Your task to perform on an android device: Open the web browser Image 0: 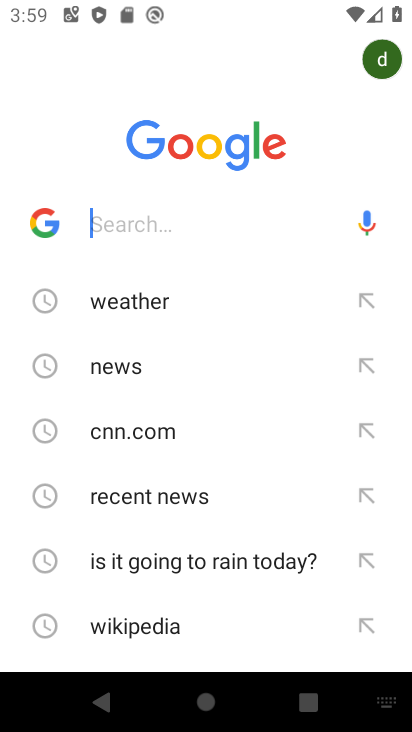
Step 0: press home button
Your task to perform on an android device: Open the web browser Image 1: 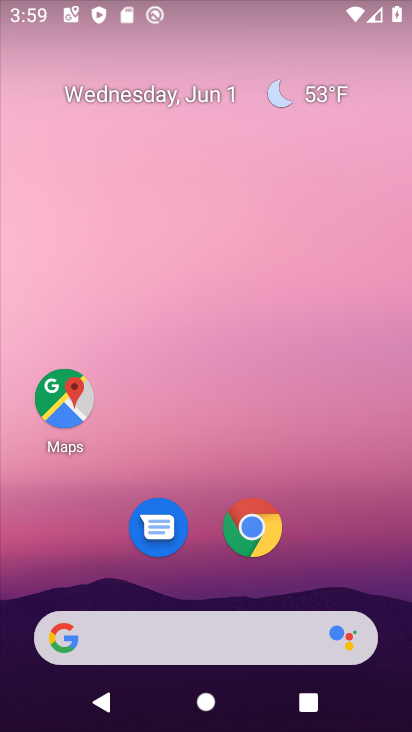
Step 1: click (252, 523)
Your task to perform on an android device: Open the web browser Image 2: 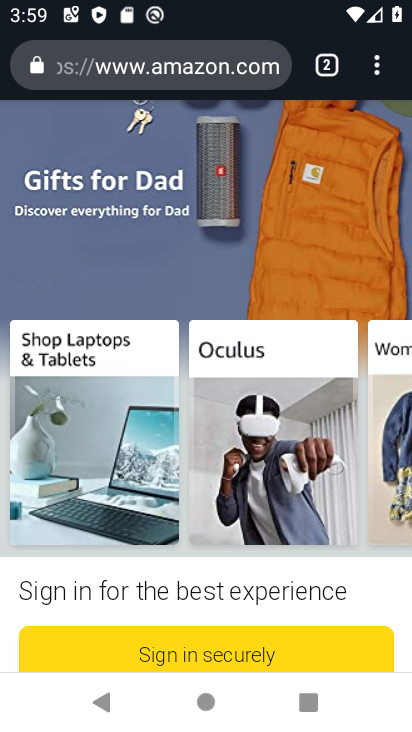
Step 2: click (208, 58)
Your task to perform on an android device: Open the web browser Image 3: 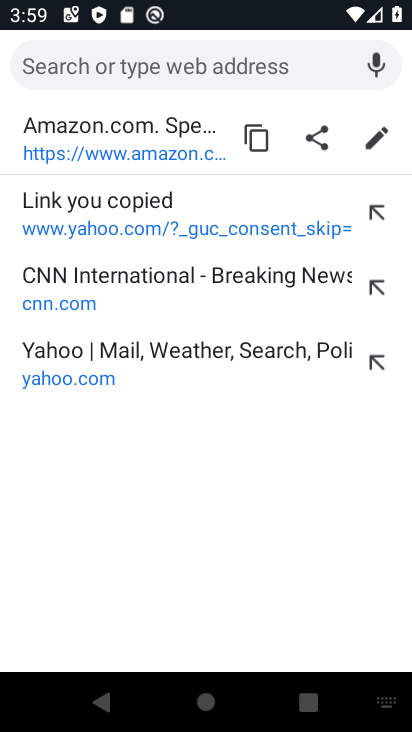
Step 3: type "web browser"
Your task to perform on an android device: Open the web browser Image 4: 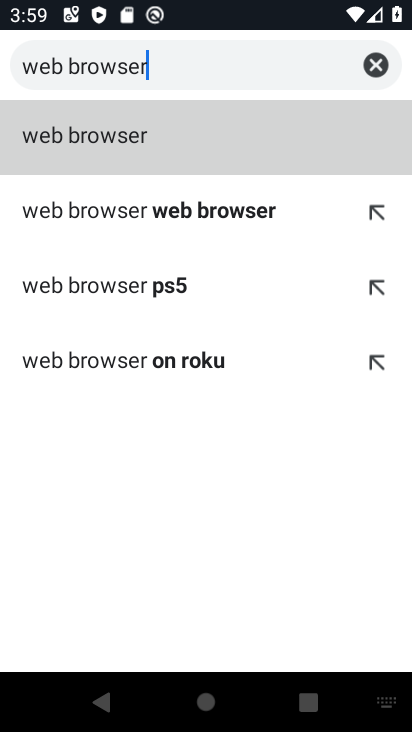
Step 4: click (94, 133)
Your task to perform on an android device: Open the web browser Image 5: 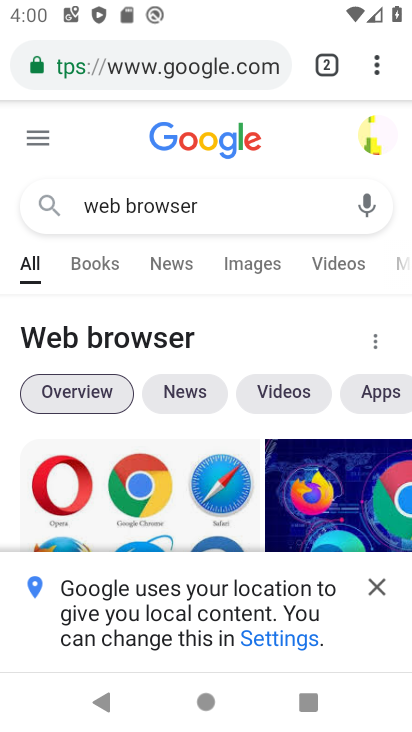
Step 5: drag from (147, 474) to (199, 84)
Your task to perform on an android device: Open the web browser Image 6: 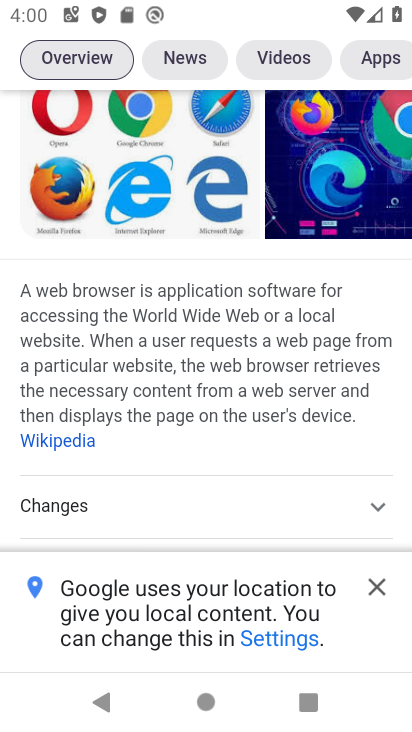
Step 6: click (377, 52)
Your task to perform on an android device: Open the web browser Image 7: 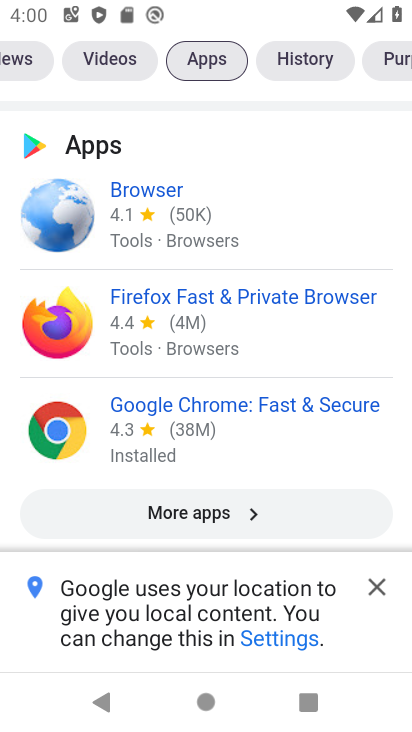
Step 7: task complete